Your task to perform on an android device: Open Yahoo.com Image 0: 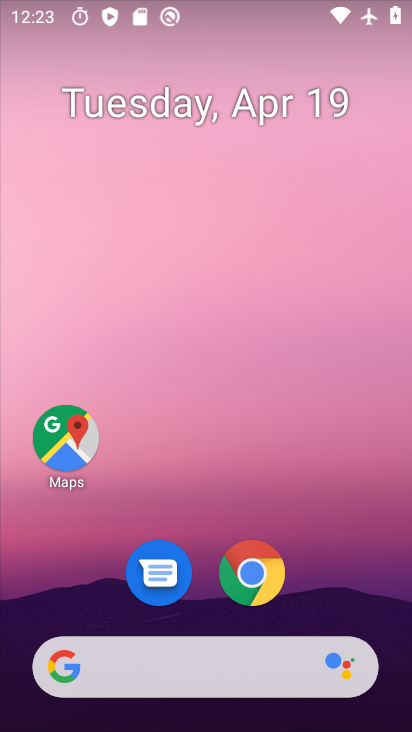
Step 0: click (269, 568)
Your task to perform on an android device: Open Yahoo.com Image 1: 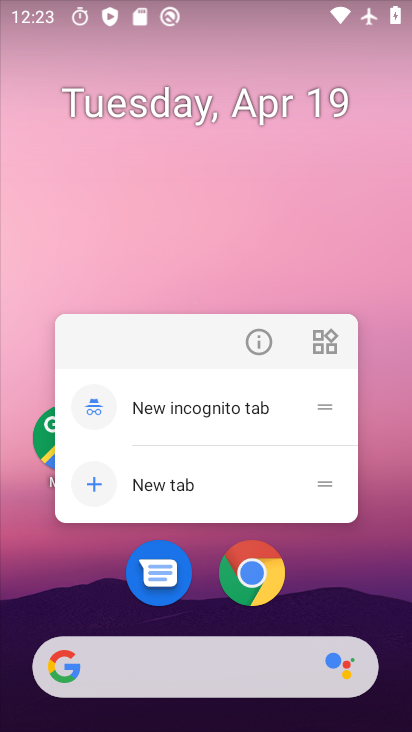
Step 1: click (253, 588)
Your task to perform on an android device: Open Yahoo.com Image 2: 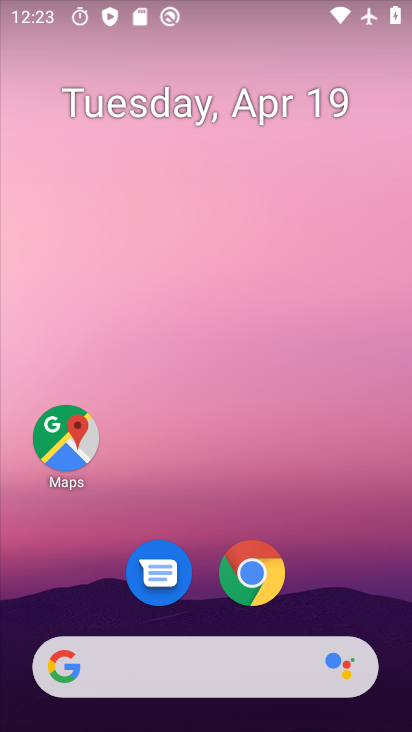
Step 2: click (240, 574)
Your task to perform on an android device: Open Yahoo.com Image 3: 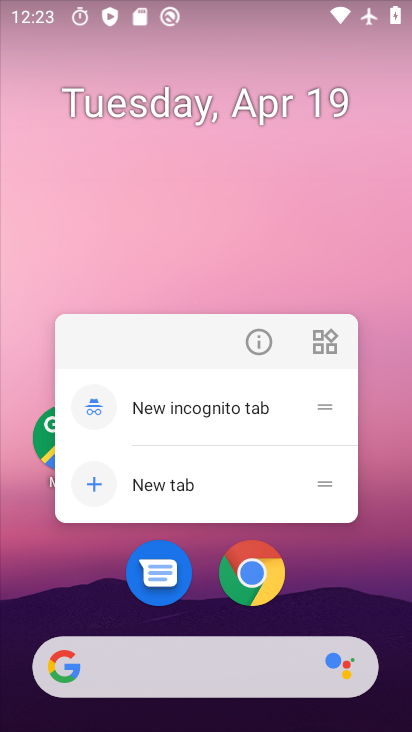
Step 3: click (249, 583)
Your task to perform on an android device: Open Yahoo.com Image 4: 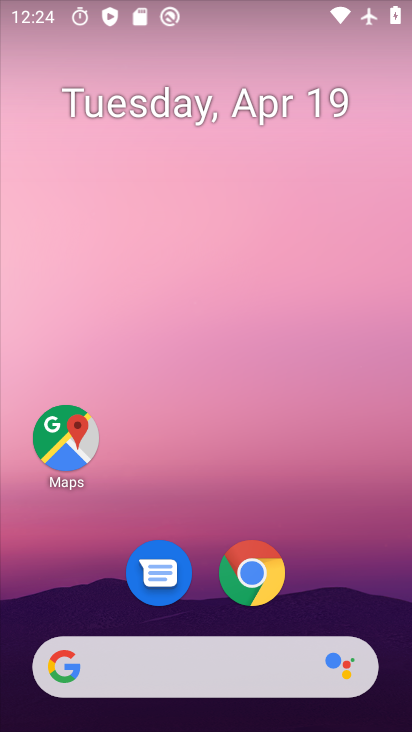
Step 4: click (252, 581)
Your task to perform on an android device: Open Yahoo.com Image 5: 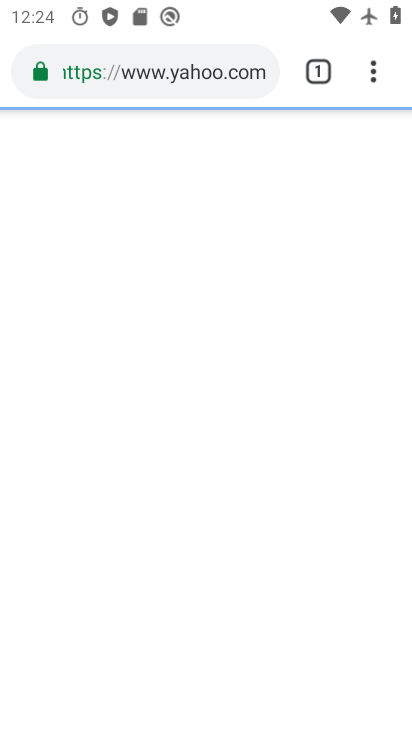
Step 5: click (185, 68)
Your task to perform on an android device: Open Yahoo.com Image 6: 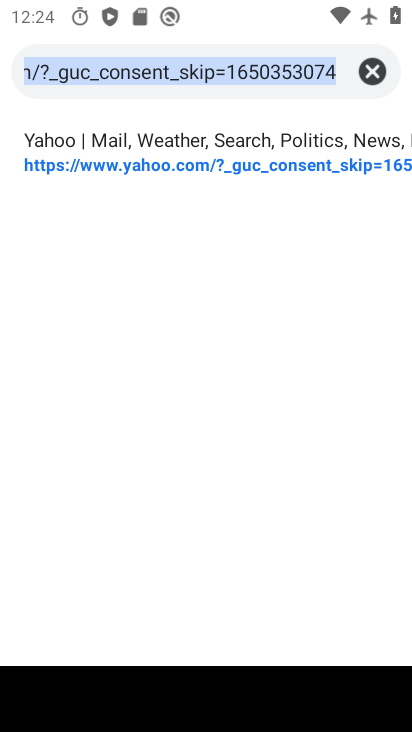
Step 6: type "yahoo.com"
Your task to perform on an android device: Open Yahoo.com Image 7: 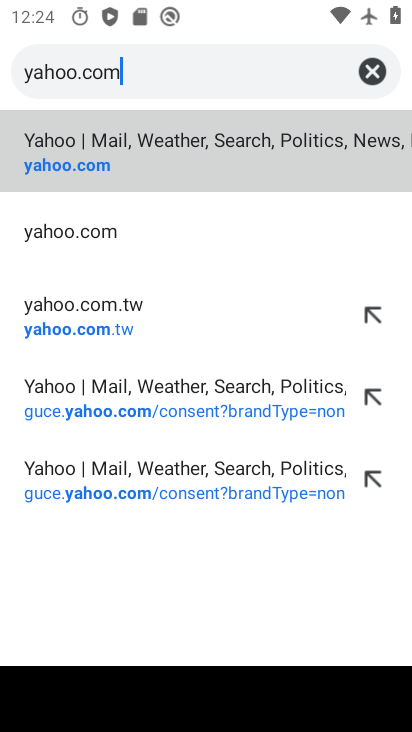
Step 7: click (88, 223)
Your task to perform on an android device: Open Yahoo.com Image 8: 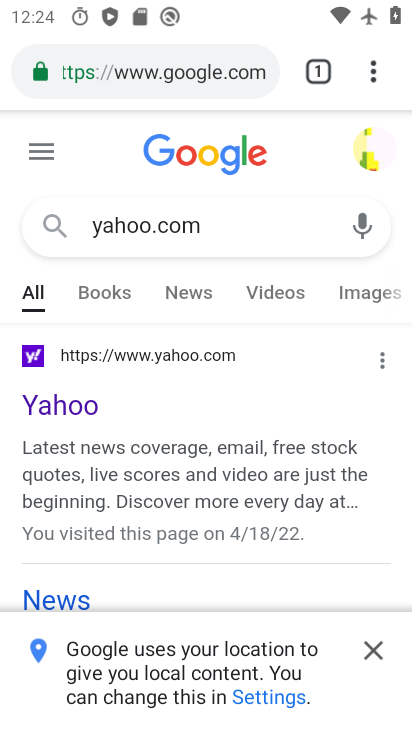
Step 8: task complete